Your task to perform on an android device: star an email in the gmail app Image 0: 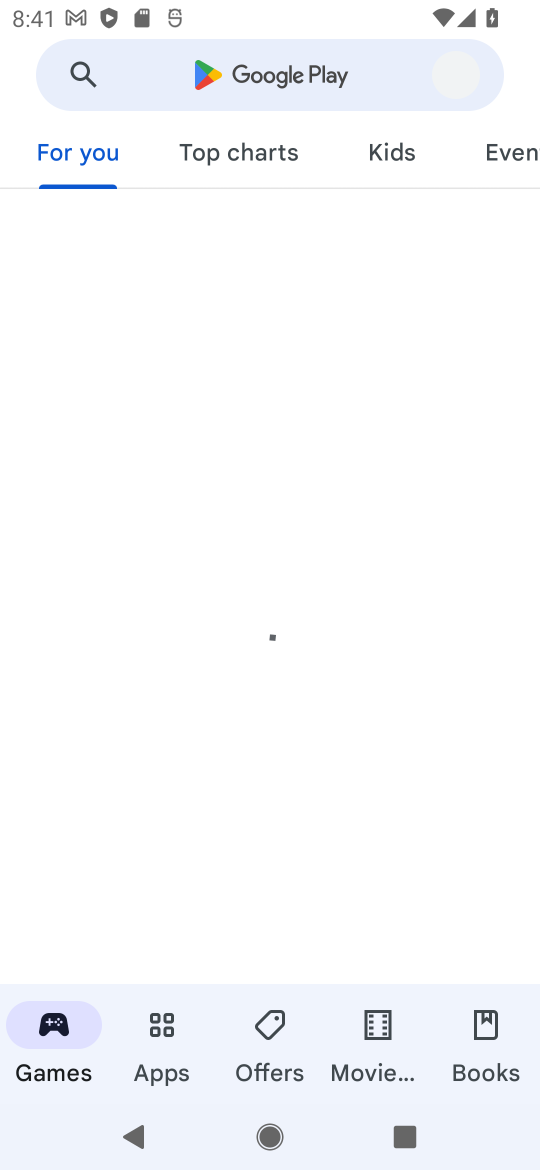
Step 0: press home button
Your task to perform on an android device: star an email in the gmail app Image 1: 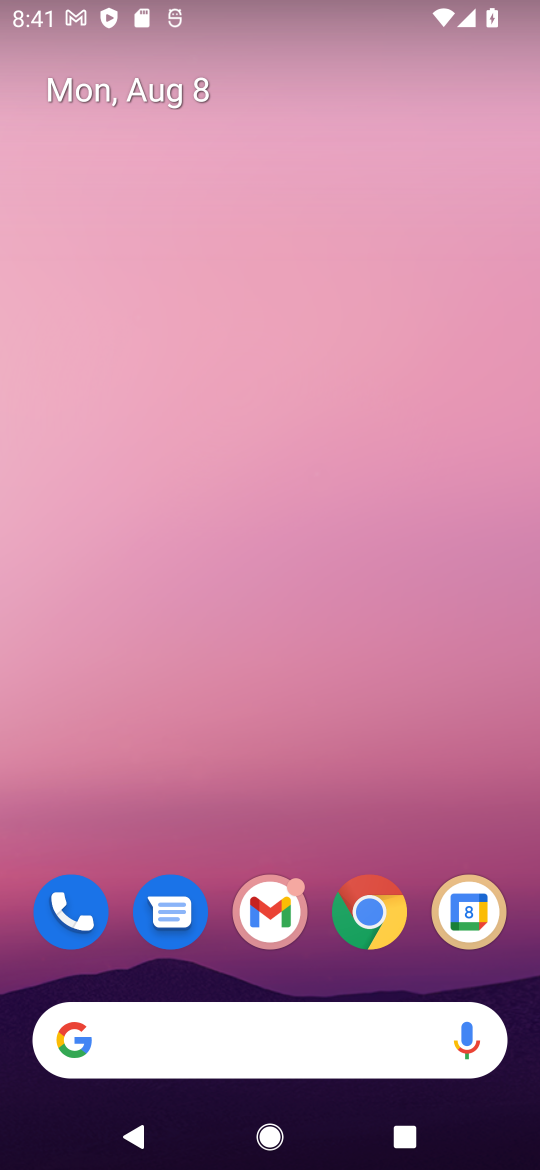
Step 1: drag from (522, 899) to (318, 34)
Your task to perform on an android device: star an email in the gmail app Image 2: 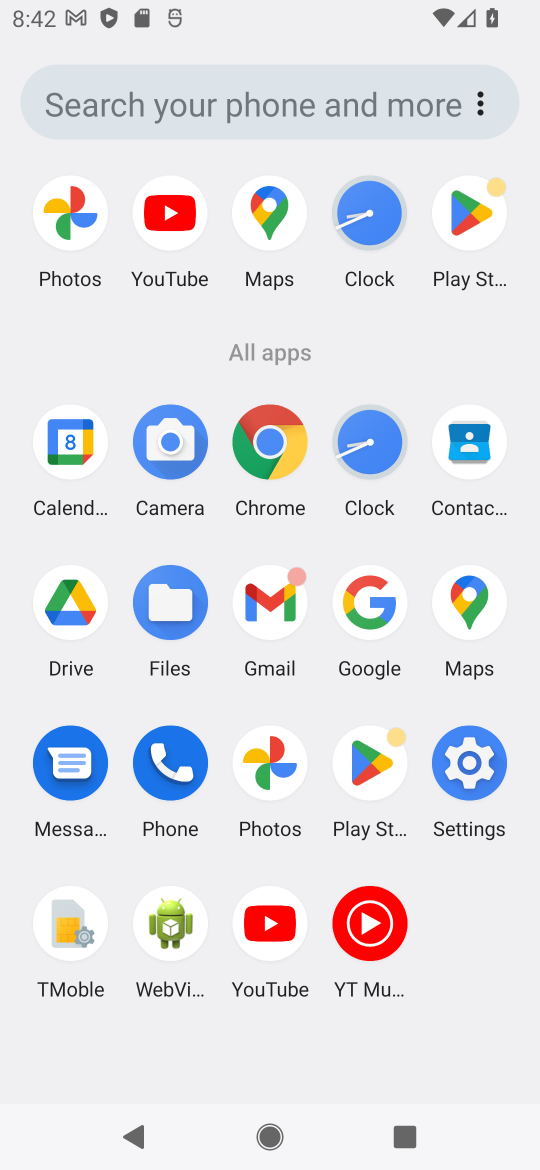
Step 2: click (264, 612)
Your task to perform on an android device: star an email in the gmail app Image 3: 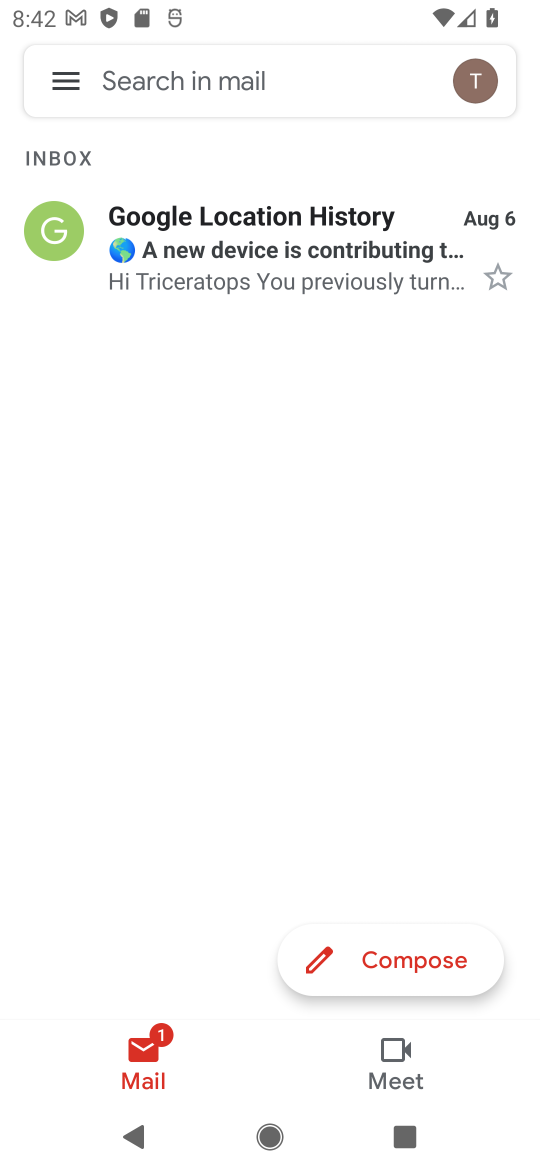
Step 3: click (494, 277)
Your task to perform on an android device: star an email in the gmail app Image 4: 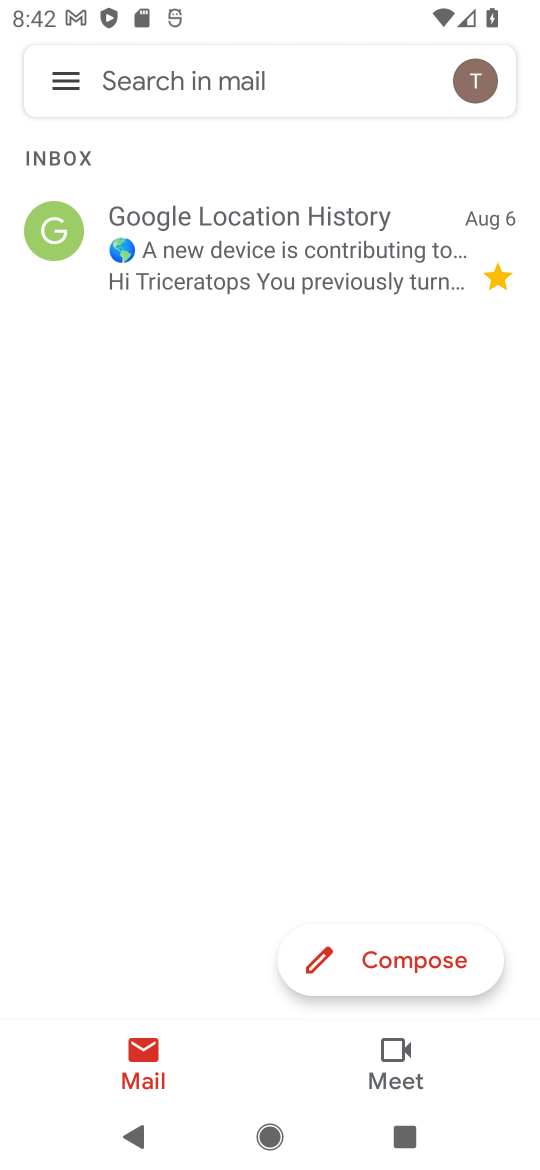
Step 4: task complete